Your task to perform on an android device: read, delete, or share a saved page in the chrome app Image 0: 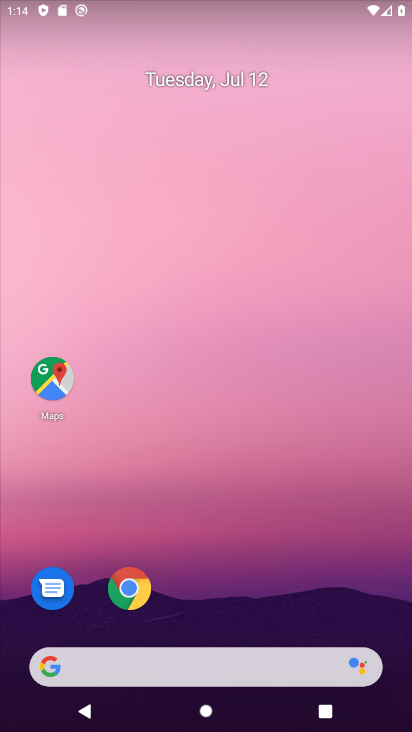
Step 0: drag from (177, 568) to (1, 73)
Your task to perform on an android device: read, delete, or share a saved page in the chrome app Image 1: 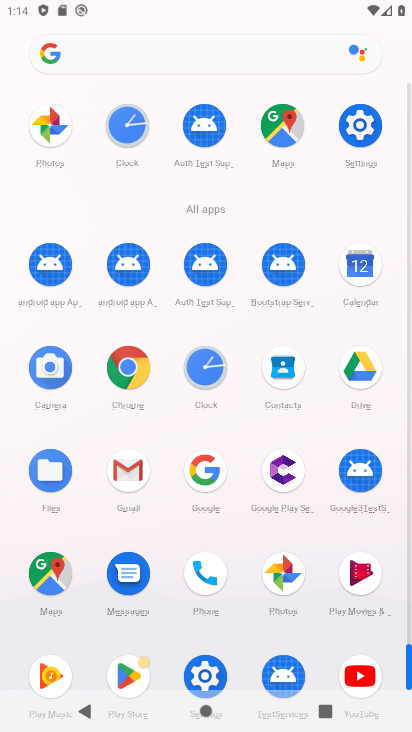
Step 1: click (134, 371)
Your task to perform on an android device: read, delete, or share a saved page in the chrome app Image 2: 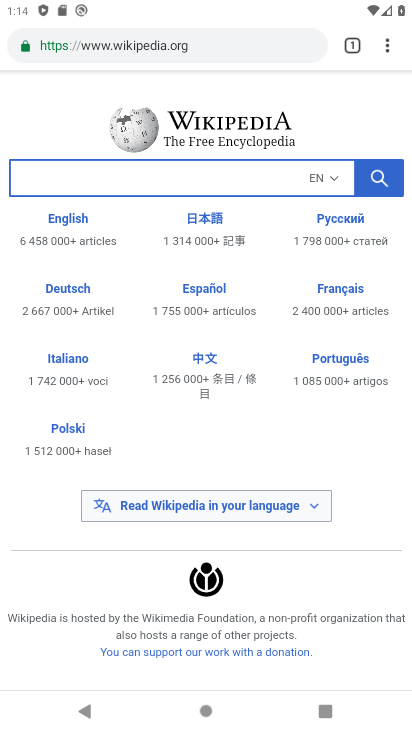
Step 2: click (383, 43)
Your task to perform on an android device: read, delete, or share a saved page in the chrome app Image 3: 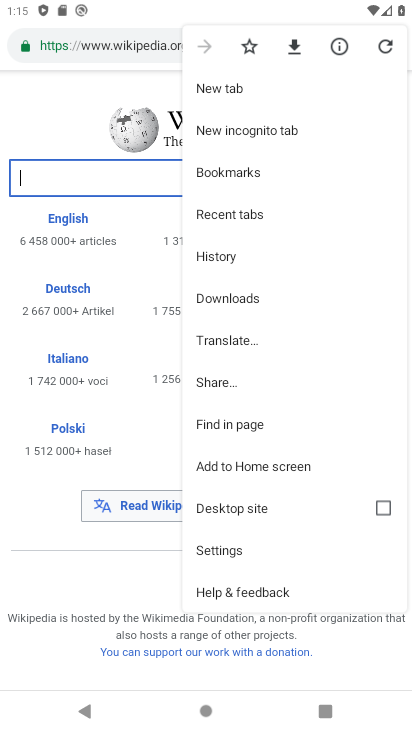
Step 3: click (254, 165)
Your task to perform on an android device: read, delete, or share a saved page in the chrome app Image 4: 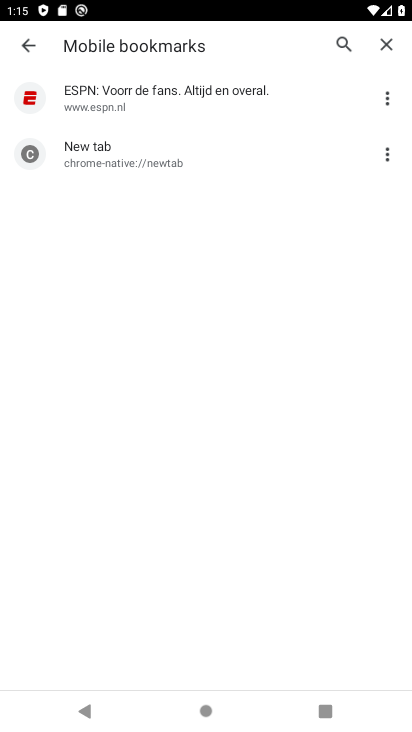
Step 4: drag from (219, 452) to (255, 195)
Your task to perform on an android device: read, delete, or share a saved page in the chrome app Image 5: 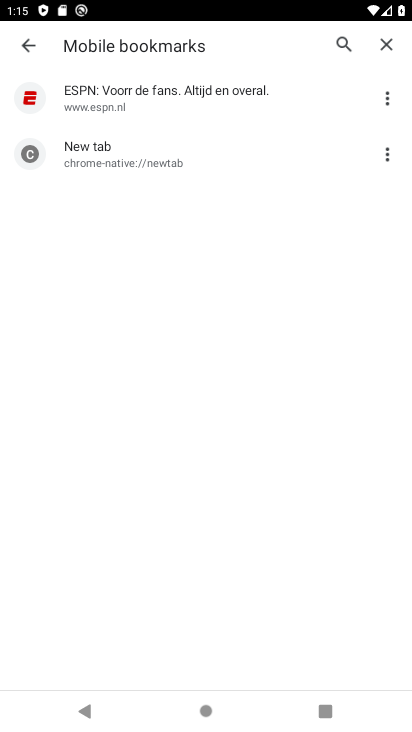
Step 5: click (306, 97)
Your task to perform on an android device: read, delete, or share a saved page in the chrome app Image 6: 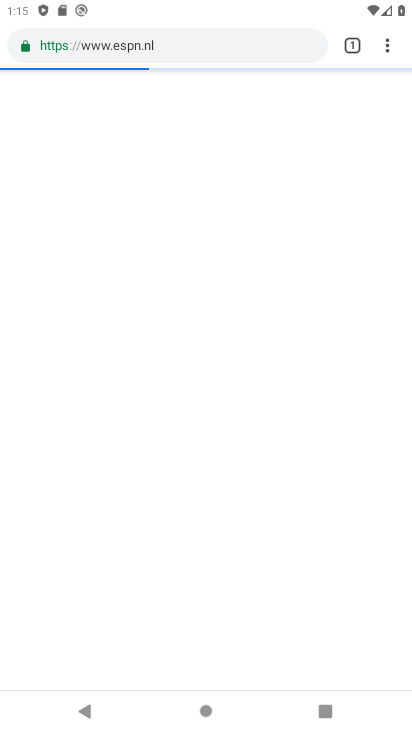
Step 6: task complete